Your task to perform on an android device: open app "McDonald's" (install if not already installed), go to login, and select forgot password Image 0: 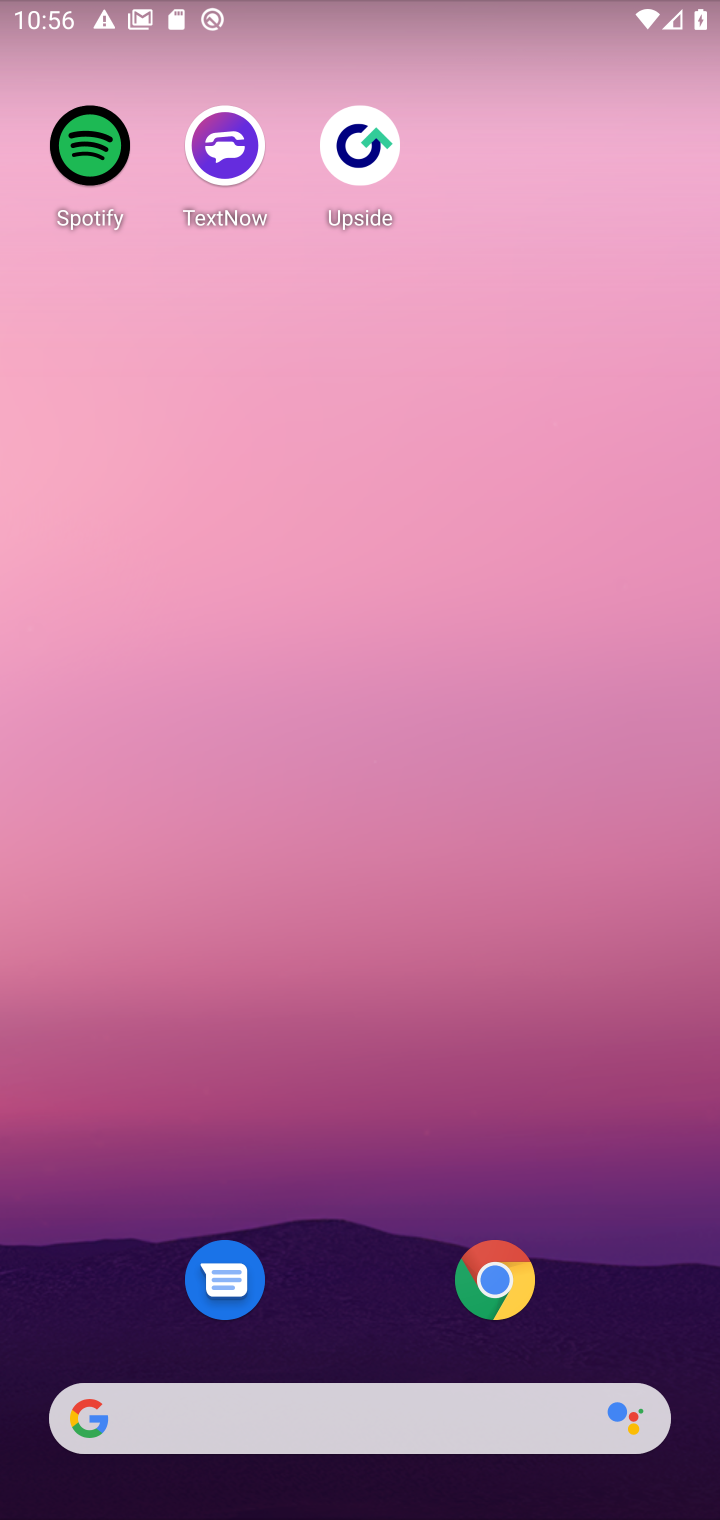
Step 0: drag from (315, 1384) to (163, 264)
Your task to perform on an android device: open app "McDonald's" (install if not already installed), go to login, and select forgot password Image 1: 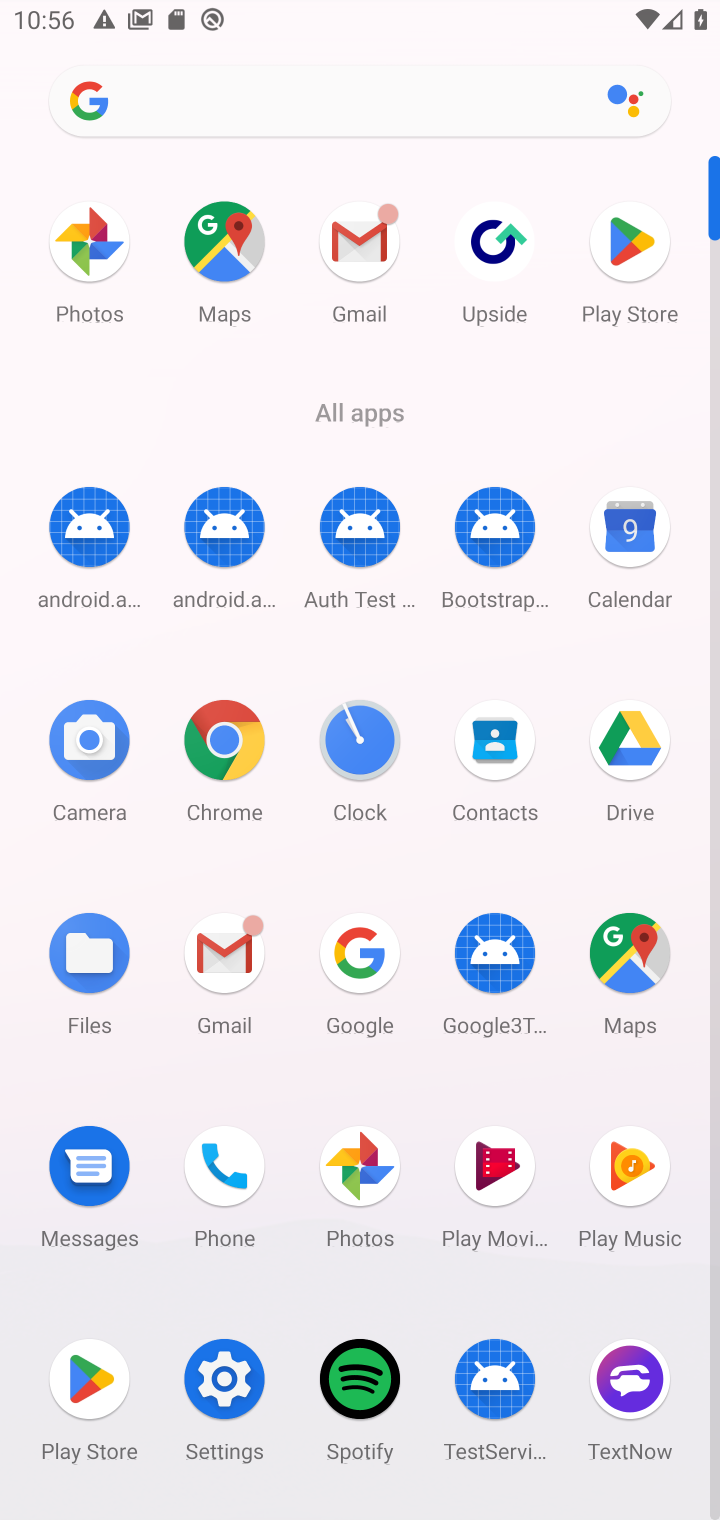
Step 1: click (84, 1389)
Your task to perform on an android device: open app "McDonald's" (install if not already installed), go to login, and select forgot password Image 2: 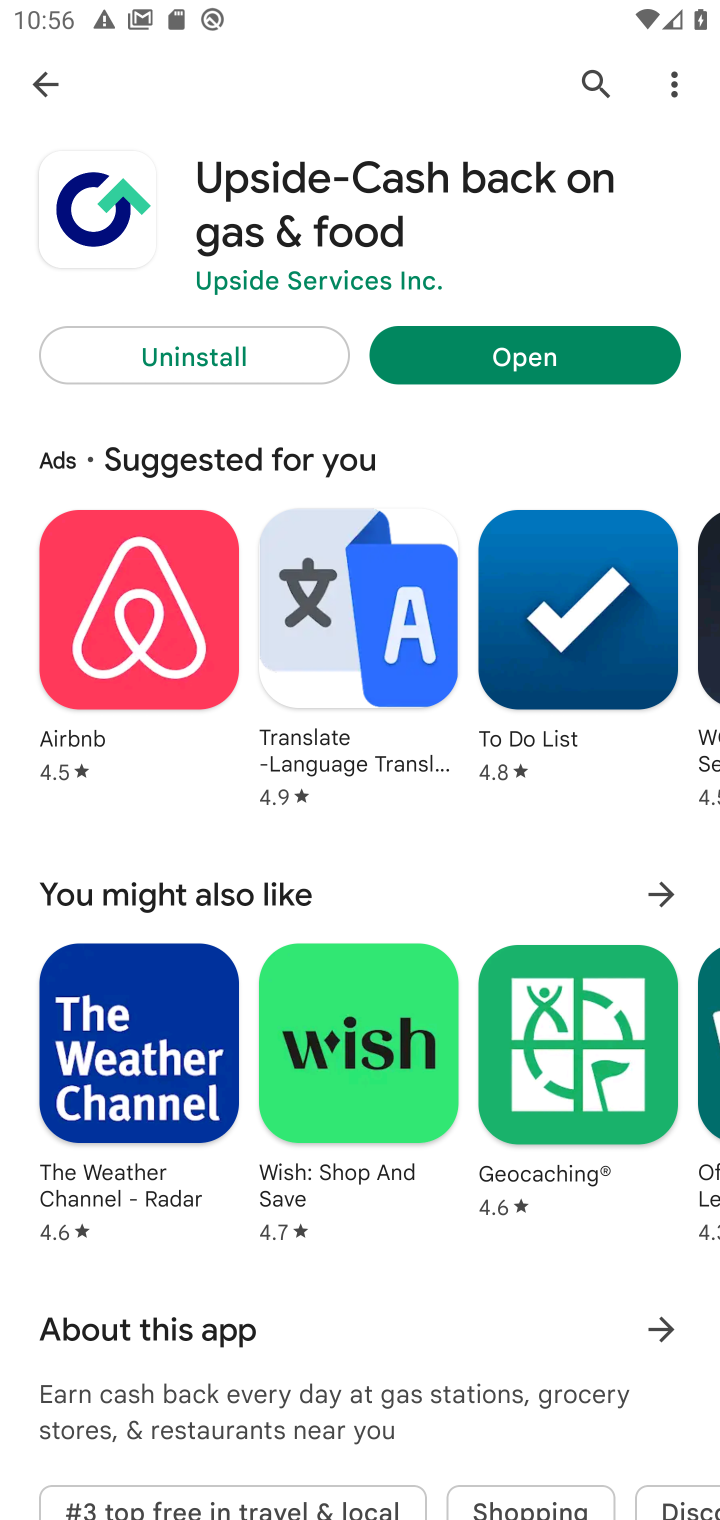
Step 2: click (12, 58)
Your task to perform on an android device: open app "McDonald's" (install if not already installed), go to login, and select forgot password Image 3: 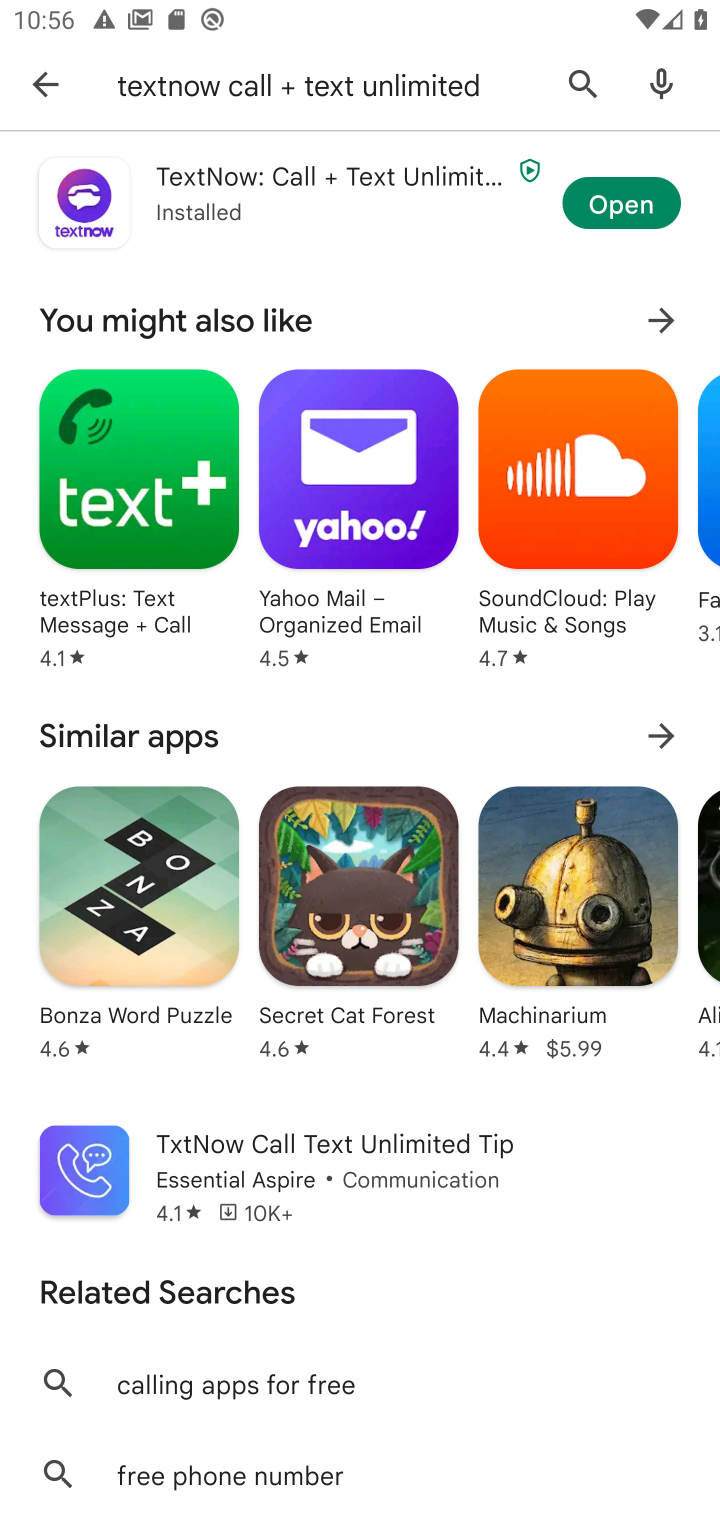
Step 3: click (606, 105)
Your task to perform on an android device: open app "McDonald's" (install if not already installed), go to login, and select forgot password Image 4: 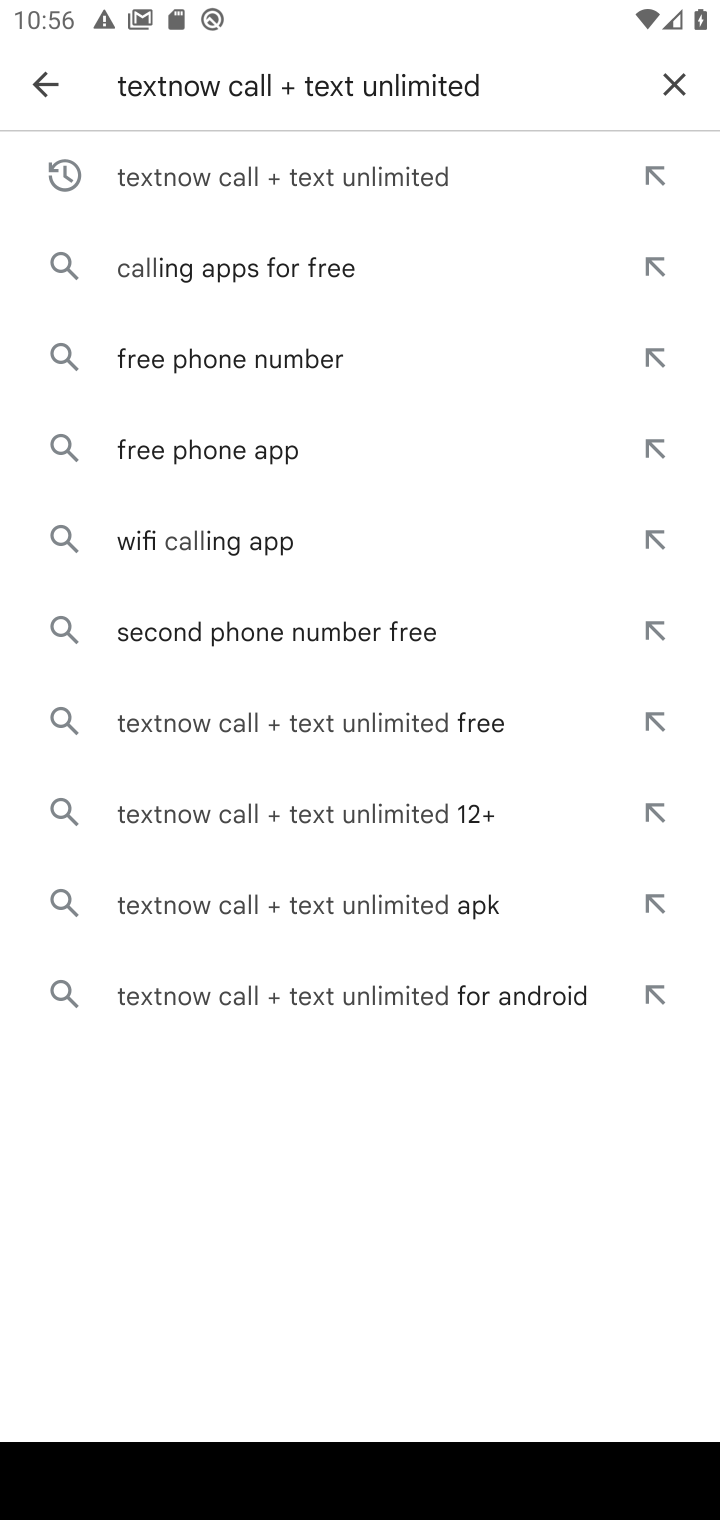
Step 4: click (675, 83)
Your task to perform on an android device: open app "McDonald's" (install if not already installed), go to login, and select forgot password Image 5: 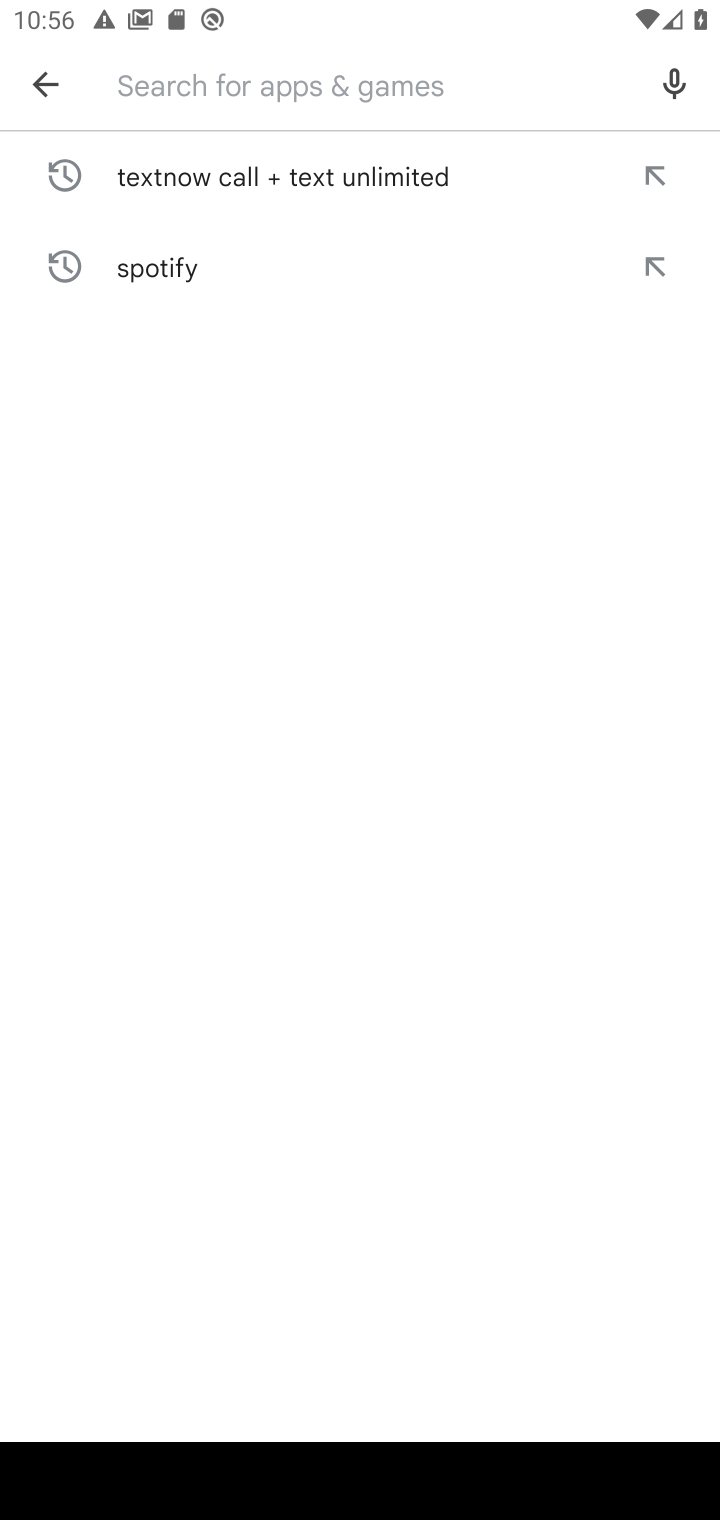
Step 5: type "McDonald's"
Your task to perform on an android device: open app "McDonald's" (install if not already installed), go to login, and select forgot password Image 6: 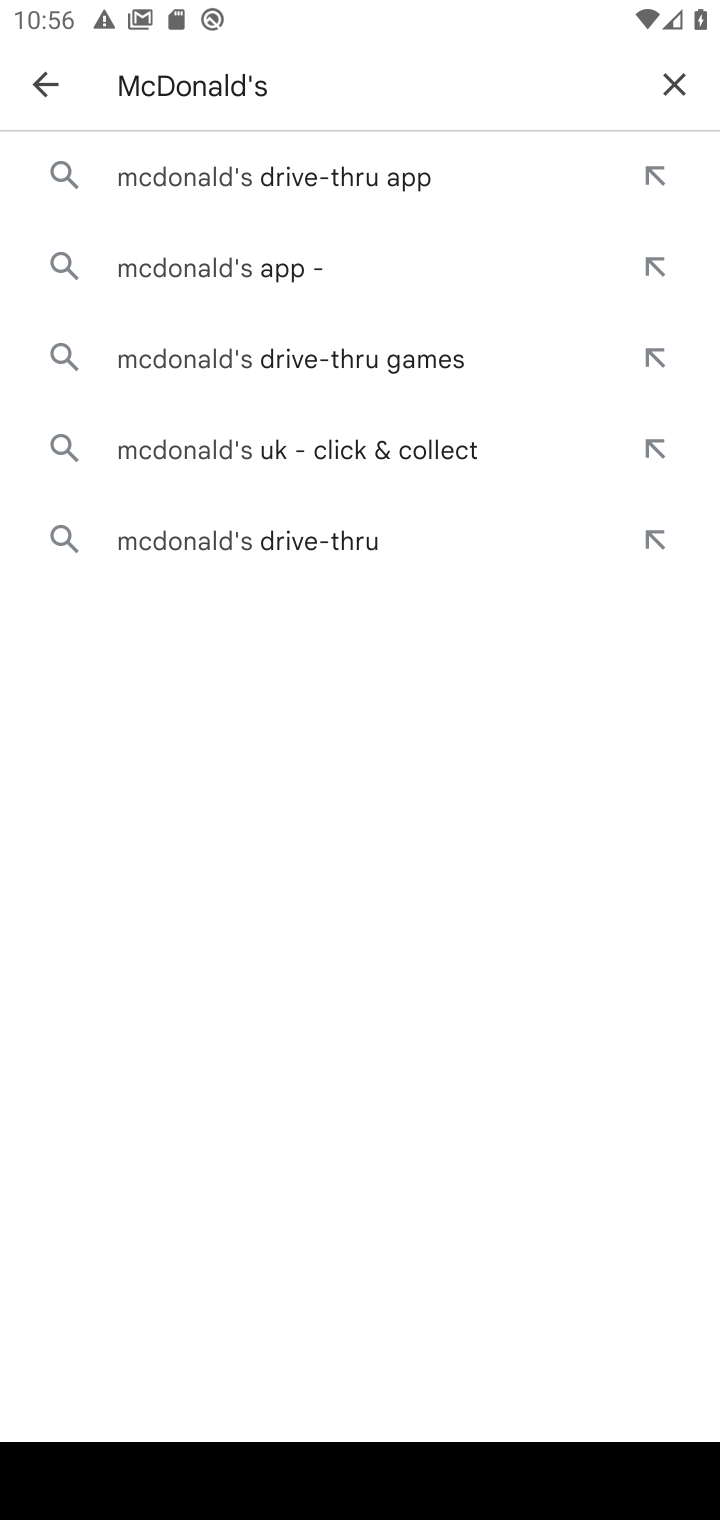
Step 6: click (189, 182)
Your task to perform on an android device: open app "McDonald's" (install if not already installed), go to login, and select forgot password Image 7: 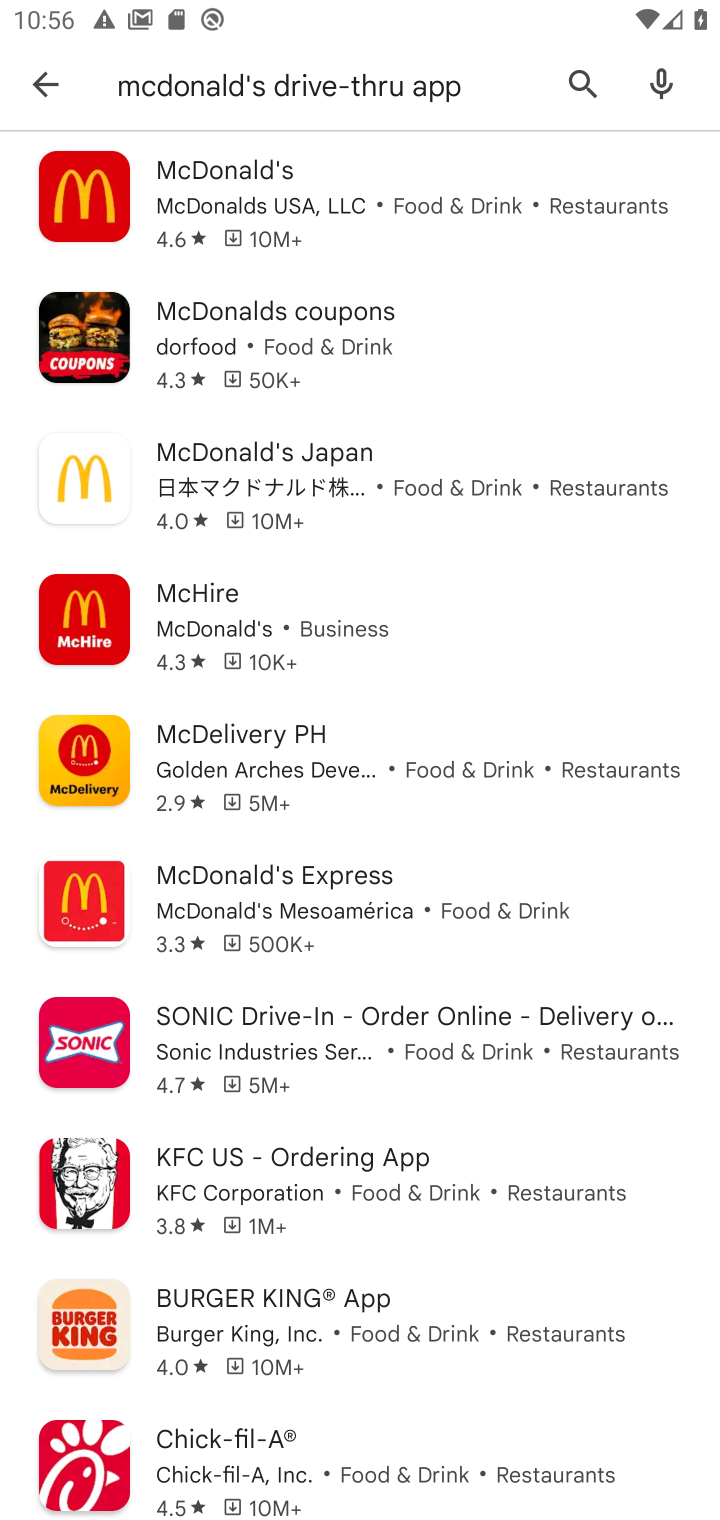
Step 7: click (221, 234)
Your task to perform on an android device: open app "McDonald's" (install if not already installed), go to login, and select forgot password Image 8: 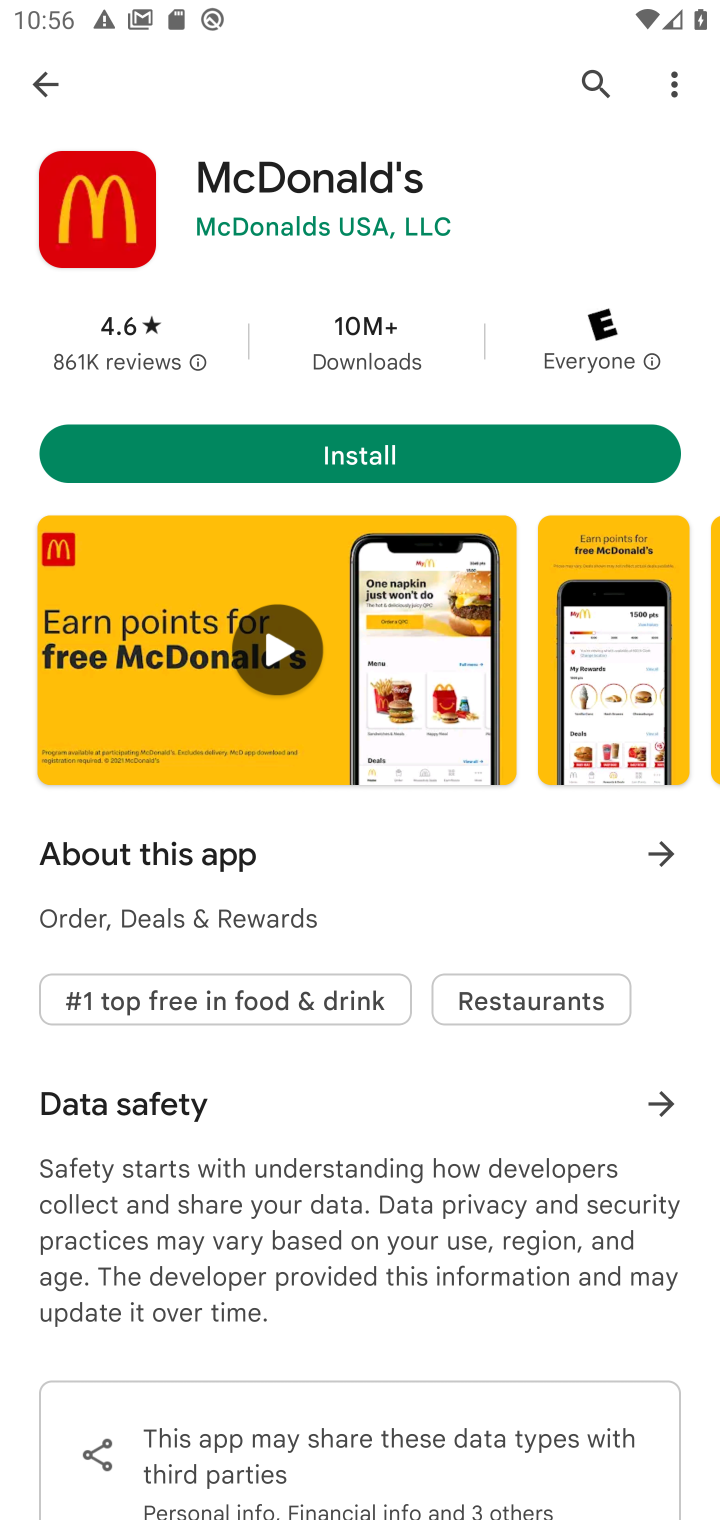
Step 8: click (367, 439)
Your task to perform on an android device: open app "McDonald's" (install if not already installed), go to login, and select forgot password Image 9: 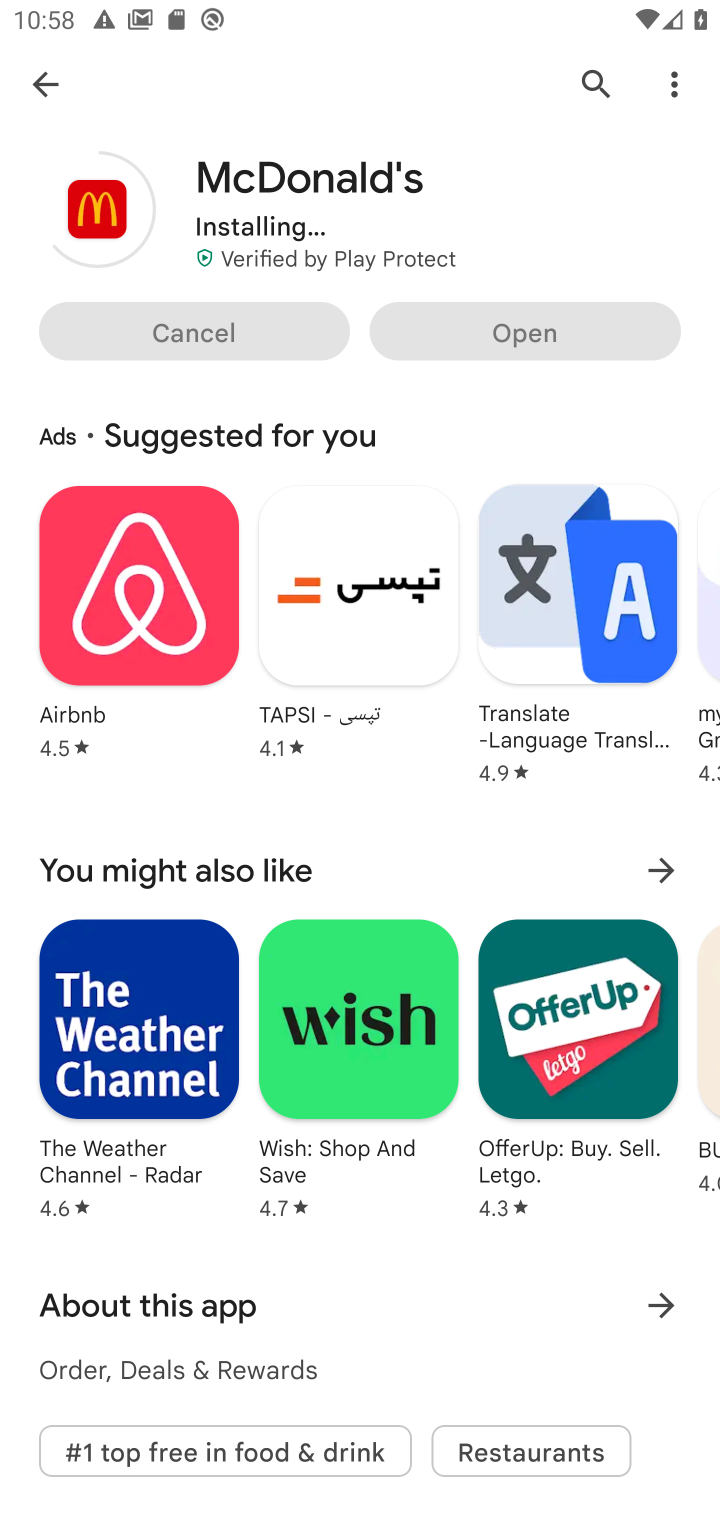
Step 9: click (248, 215)
Your task to perform on an android device: open app "McDonald's" (install if not already installed), go to login, and select forgot password Image 10: 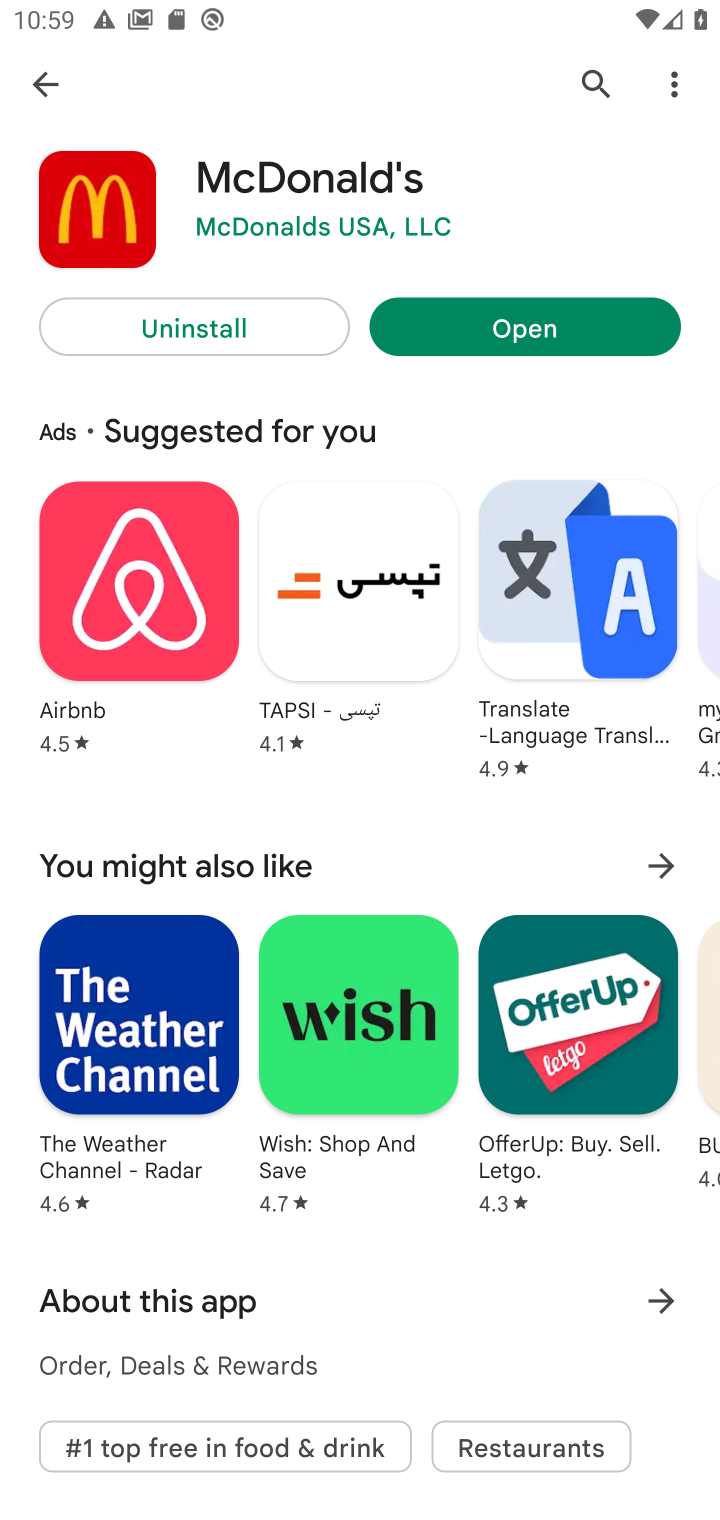
Step 10: click (524, 332)
Your task to perform on an android device: open app "McDonald's" (install if not already installed), go to login, and select forgot password Image 11: 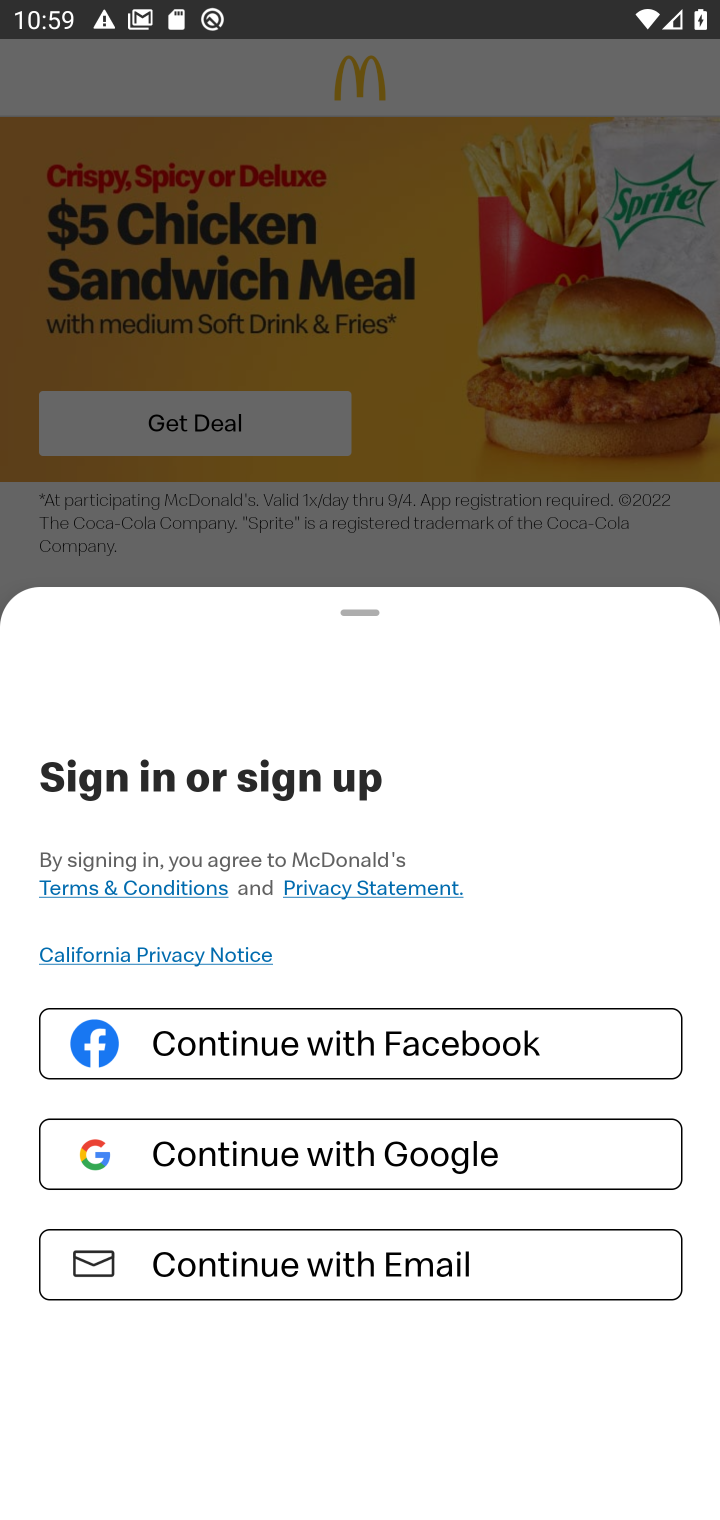
Step 11: drag from (302, 666) to (178, 572)
Your task to perform on an android device: open app "McDonald's" (install if not already installed), go to login, and select forgot password Image 12: 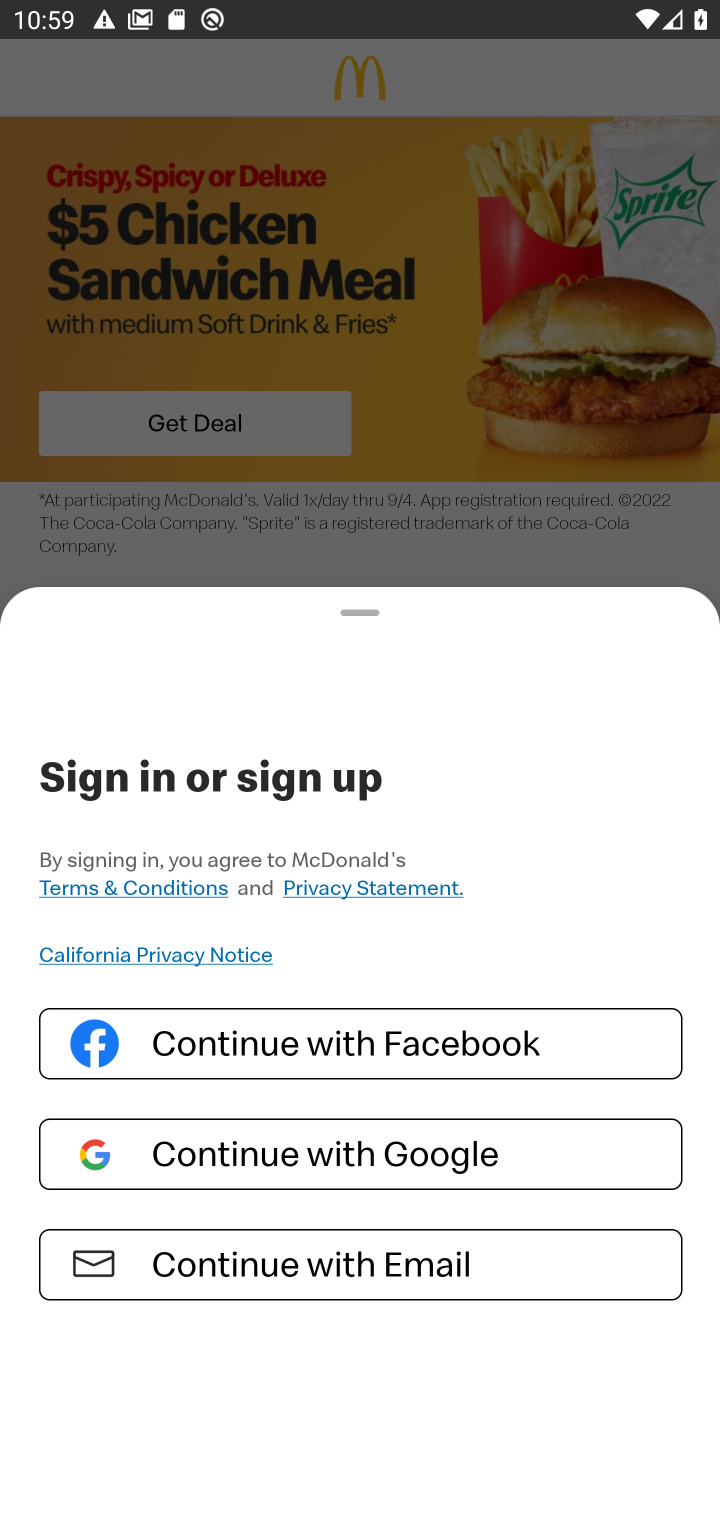
Step 12: drag from (418, 1250) to (389, 1131)
Your task to perform on an android device: open app "McDonald's" (install if not already installed), go to login, and select forgot password Image 13: 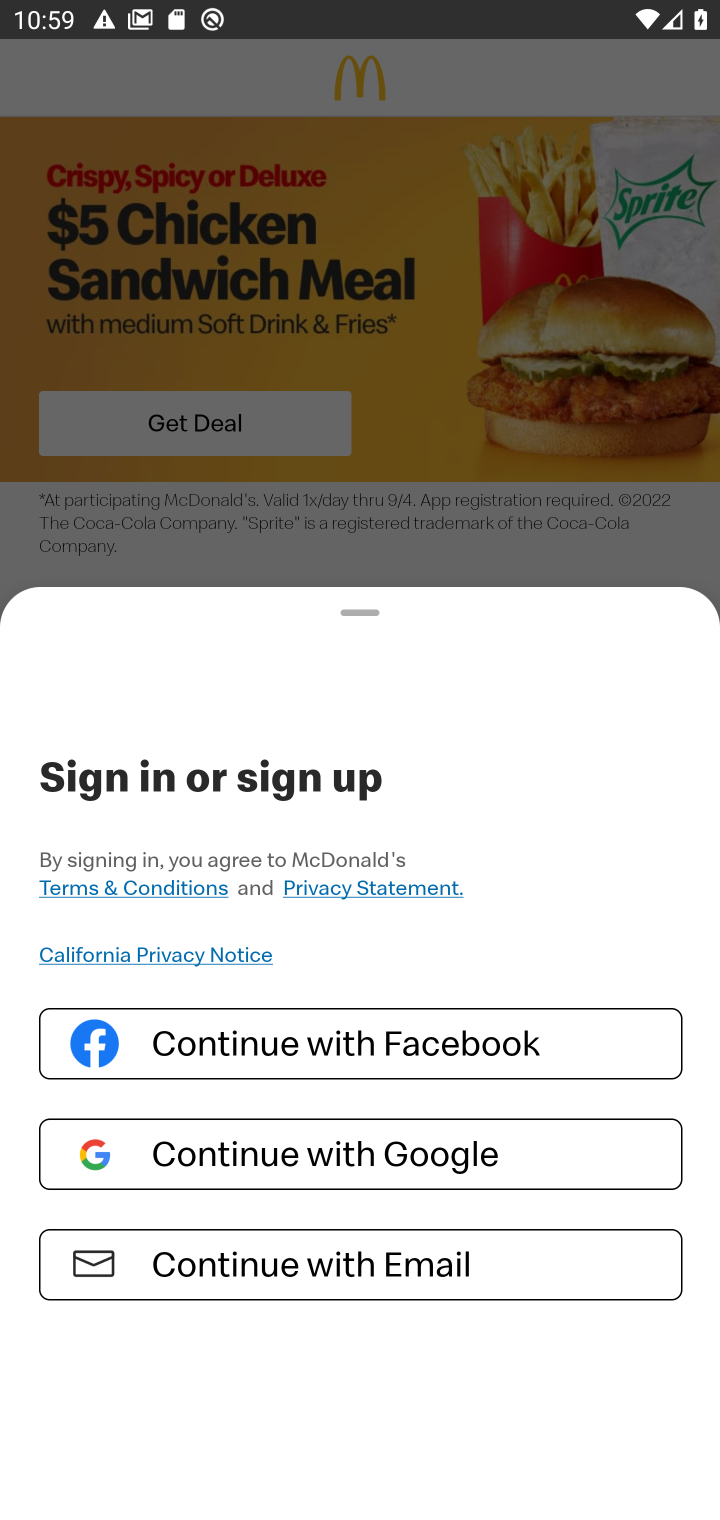
Step 13: click (391, 1280)
Your task to perform on an android device: open app "McDonald's" (install if not already installed), go to login, and select forgot password Image 14: 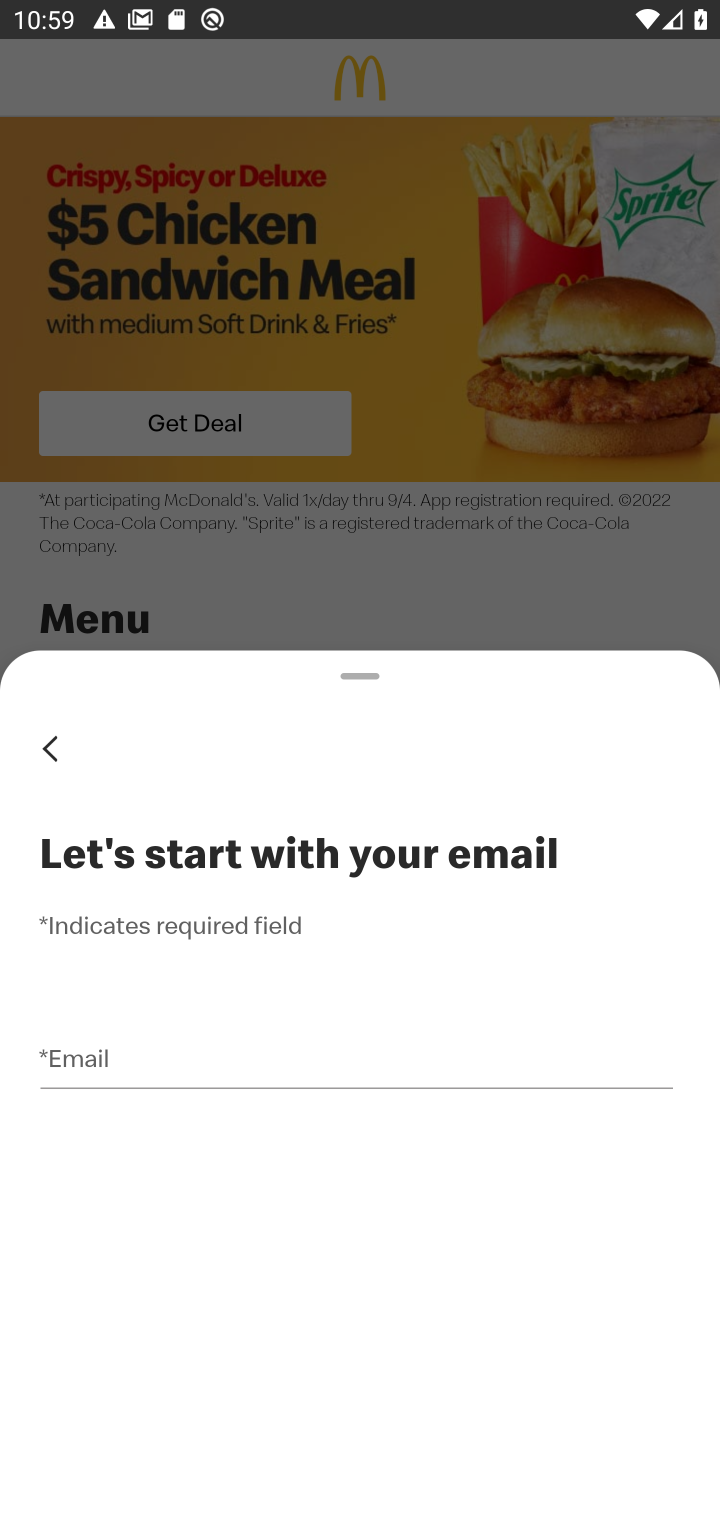
Step 14: click (52, 742)
Your task to perform on an android device: open app "McDonald's" (install if not already installed), go to login, and select forgot password Image 15: 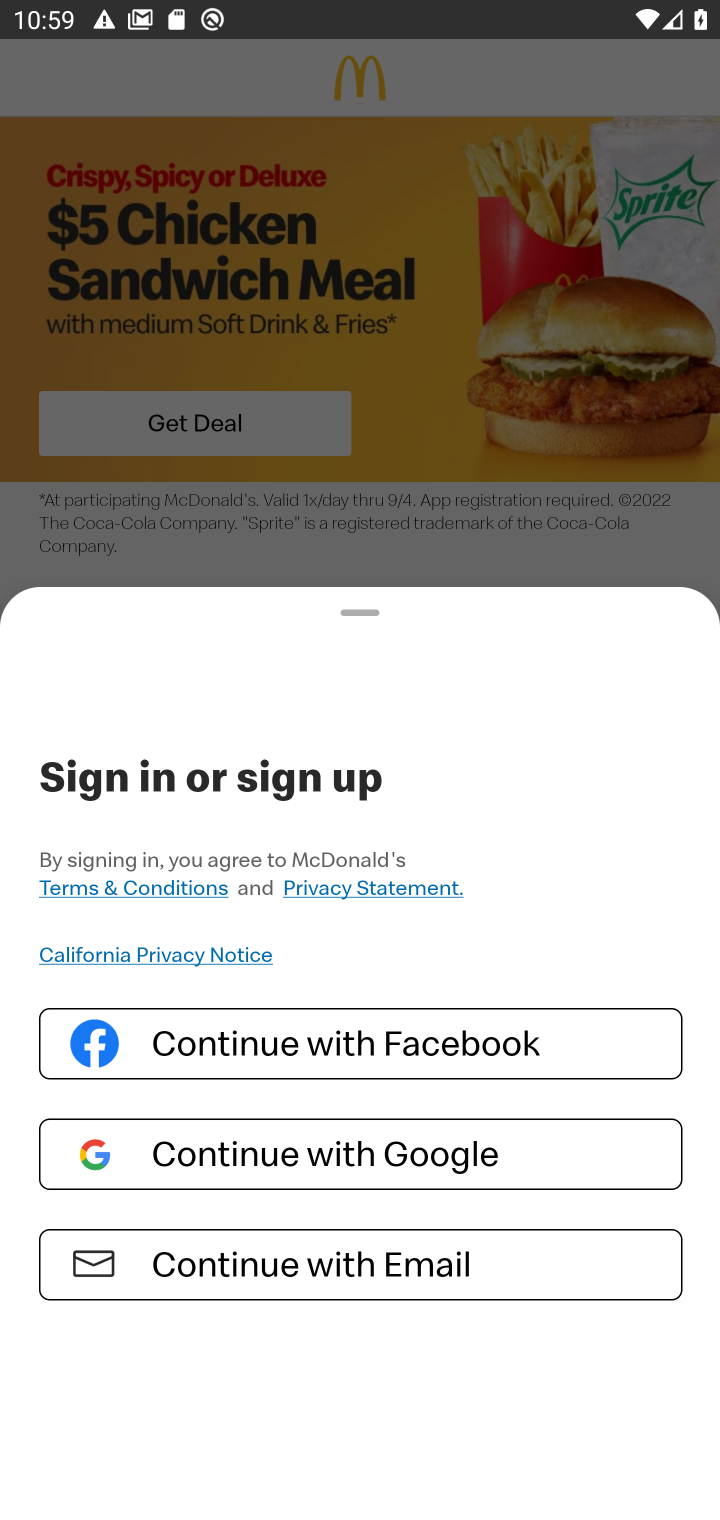
Step 15: click (248, 1154)
Your task to perform on an android device: open app "McDonald's" (install if not already installed), go to login, and select forgot password Image 16: 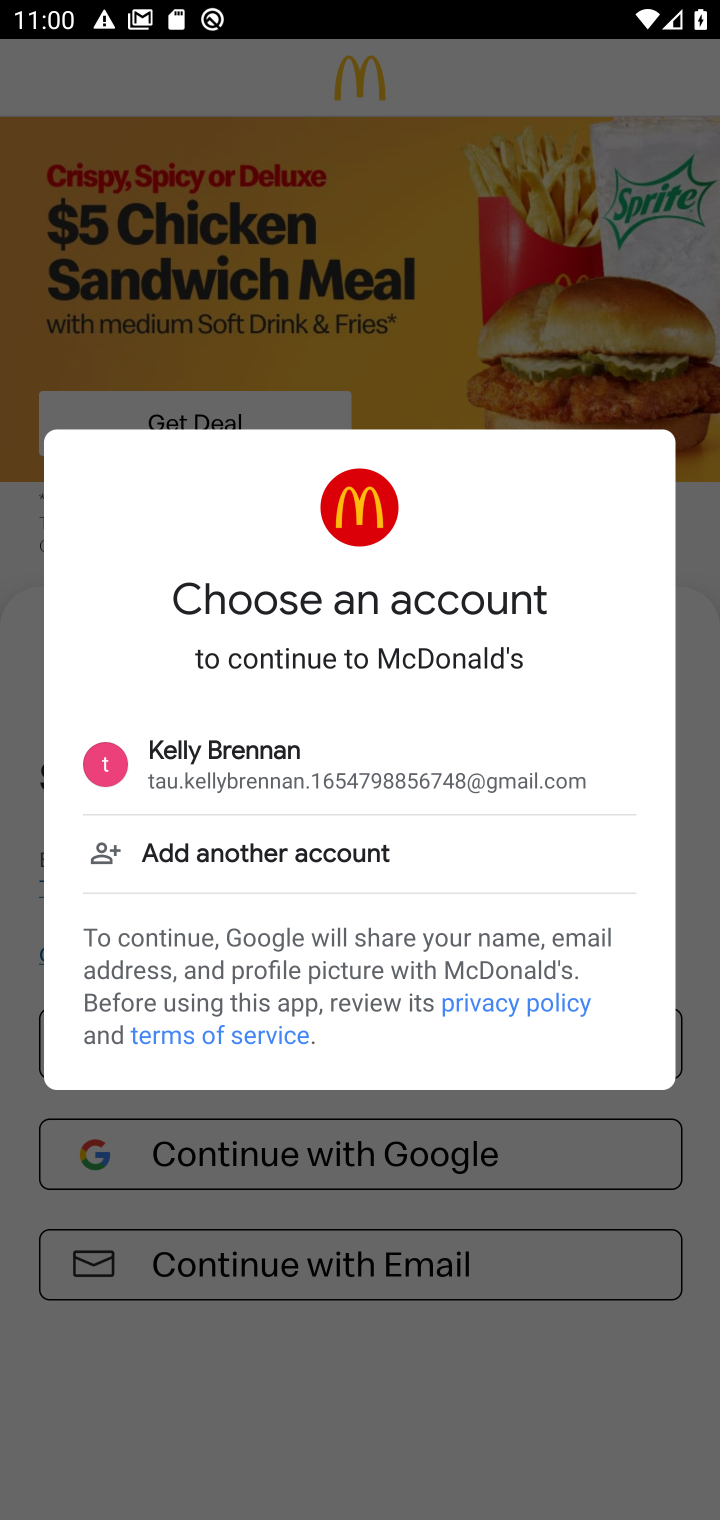
Step 16: click (246, 767)
Your task to perform on an android device: open app "McDonald's" (install if not already installed), go to login, and select forgot password Image 17: 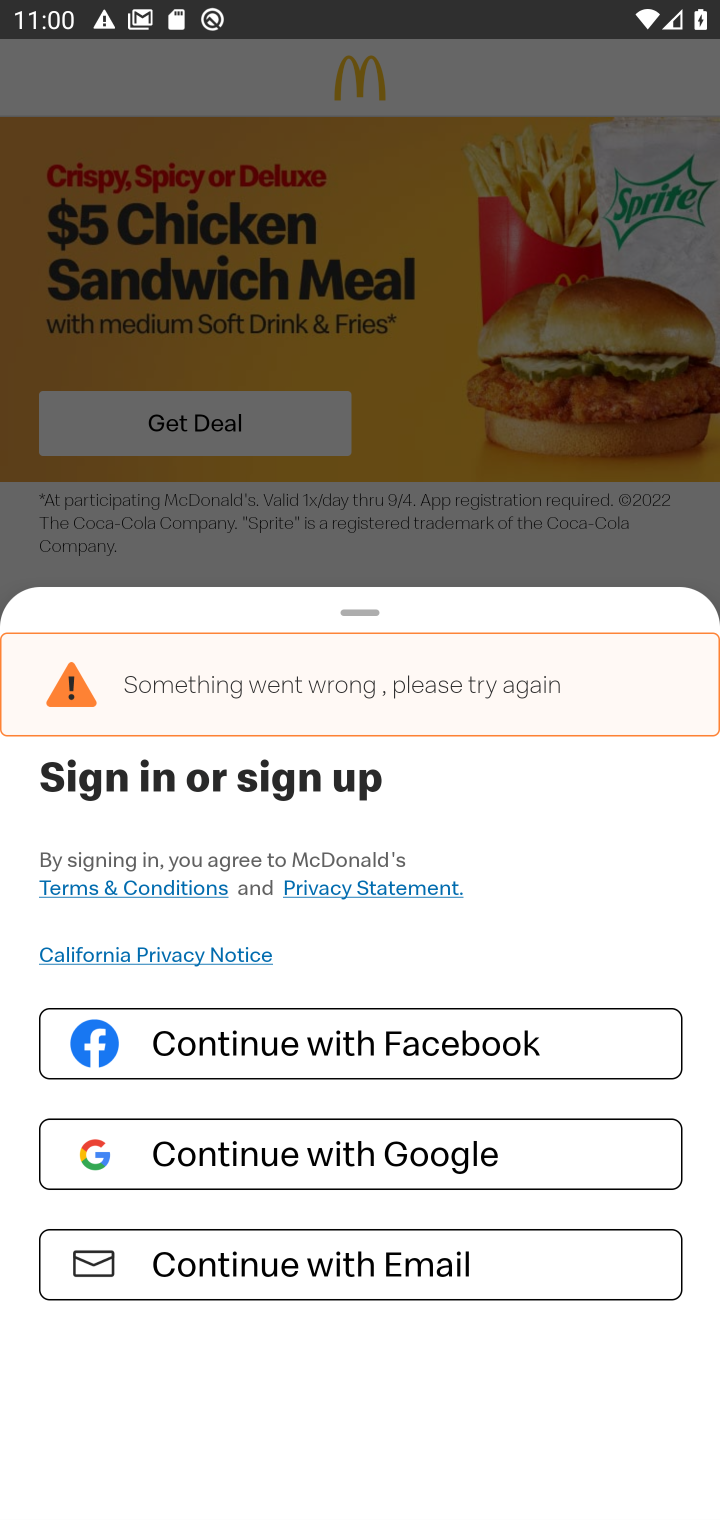
Step 17: task complete